Your task to perform on an android device: Open Yahoo.com Image 0: 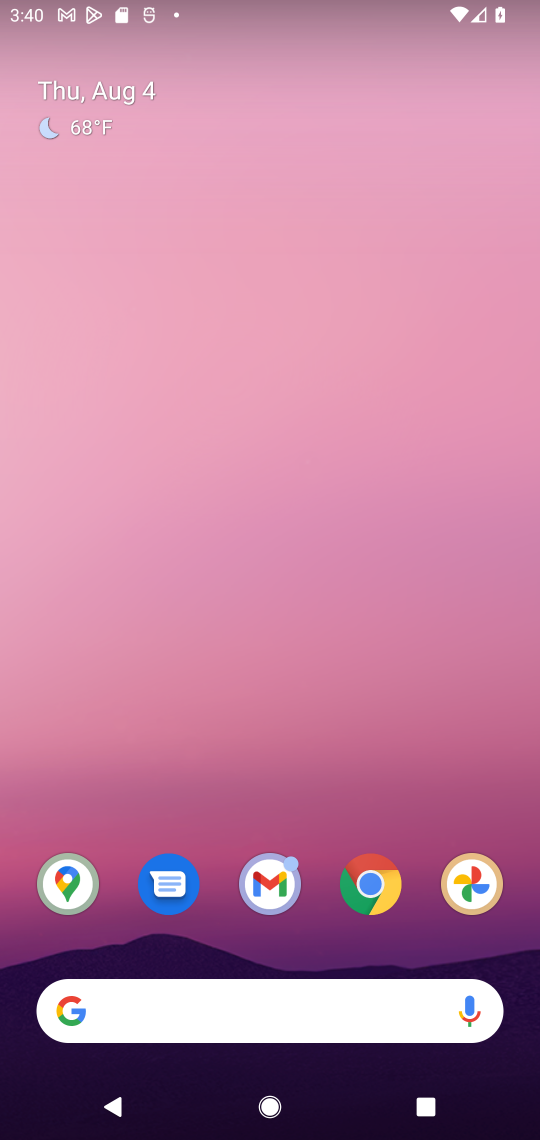
Step 0: click (373, 901)
Your task to perform on an android device: Open Yahoo.com Image 1: 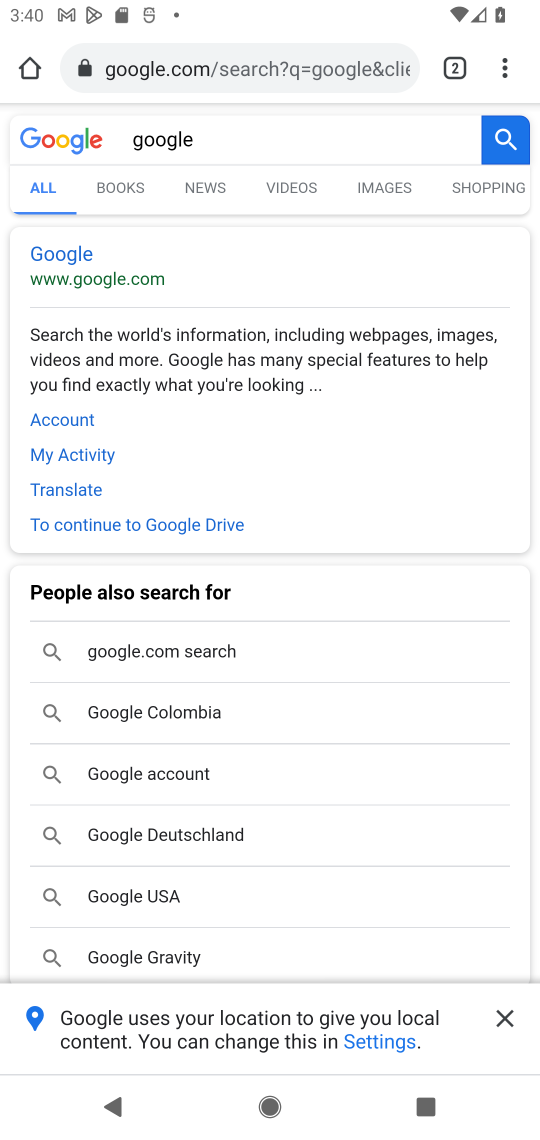
Step 1: click (290, 74)
Your task to perform on an android device: Open Yahoo.com Image 2: 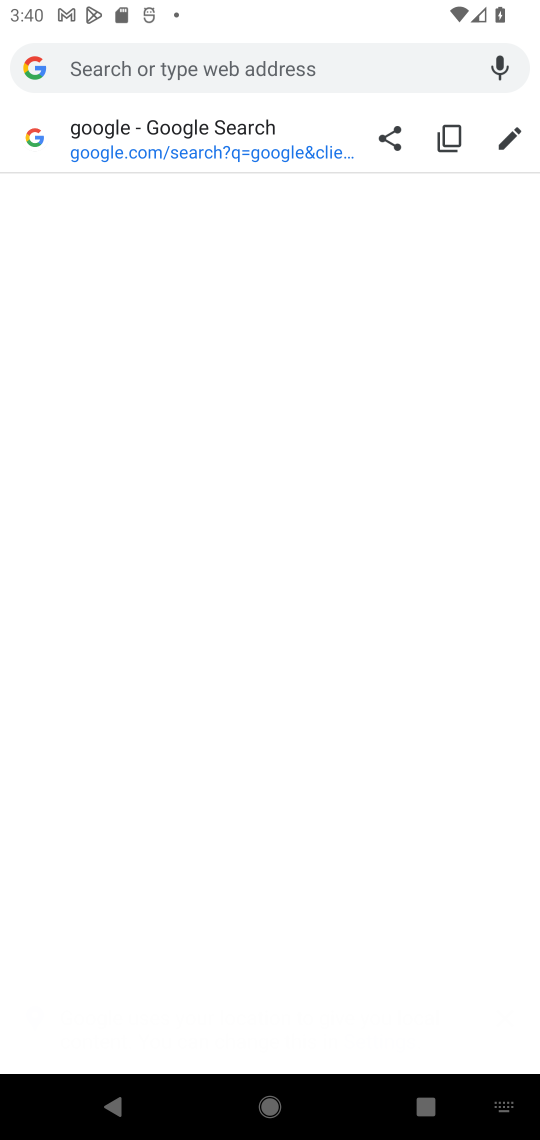
Step 2: type "yahoo.com"
Your task to perform on an android device: Open Yahoo.com Image 3: 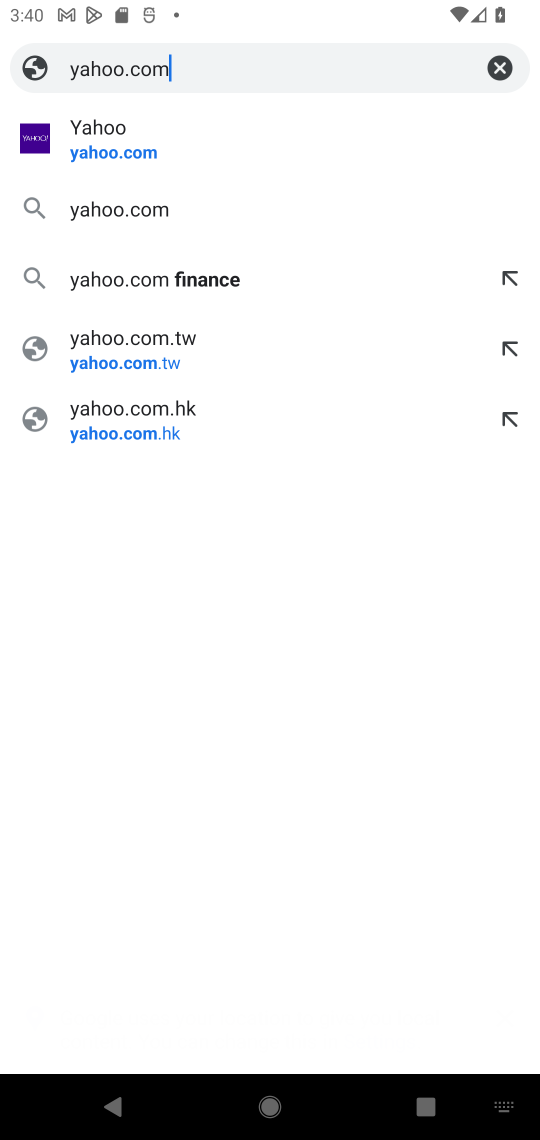
Step 3: click (311, 146)
Your task to perform on an android device: Open Yahoo.com Image 4: 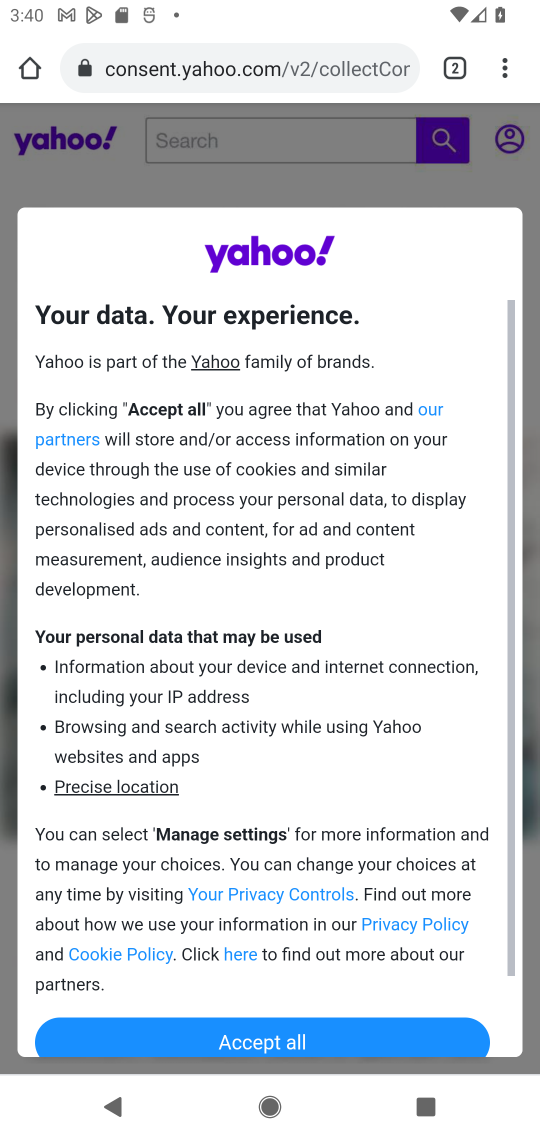
Step 4: task complete